Your task to perform on an android device: Go to Maps Image 0: 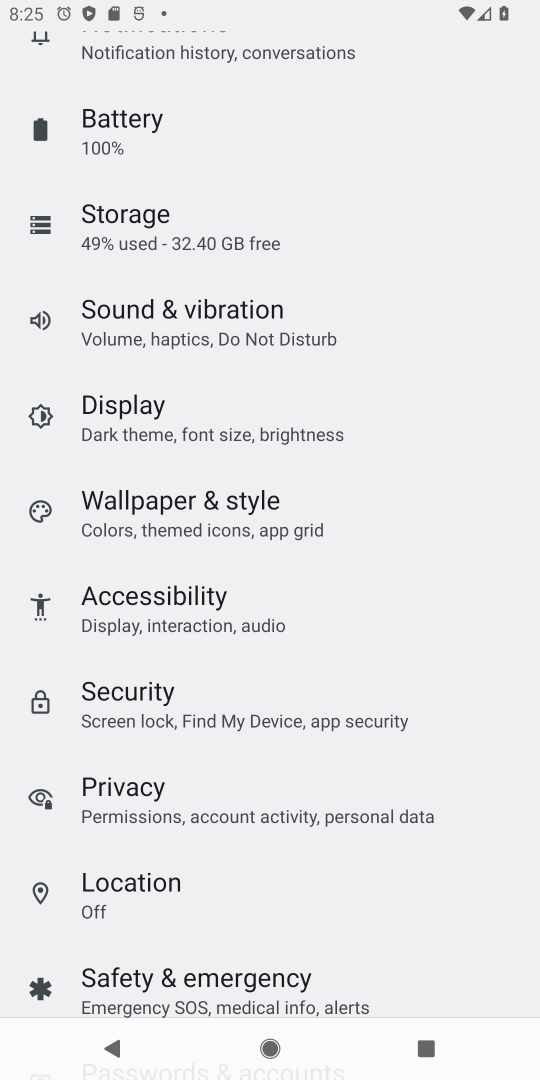
Step 0: press back button
Your task to perform on an android device: Go to Maps Image 1: 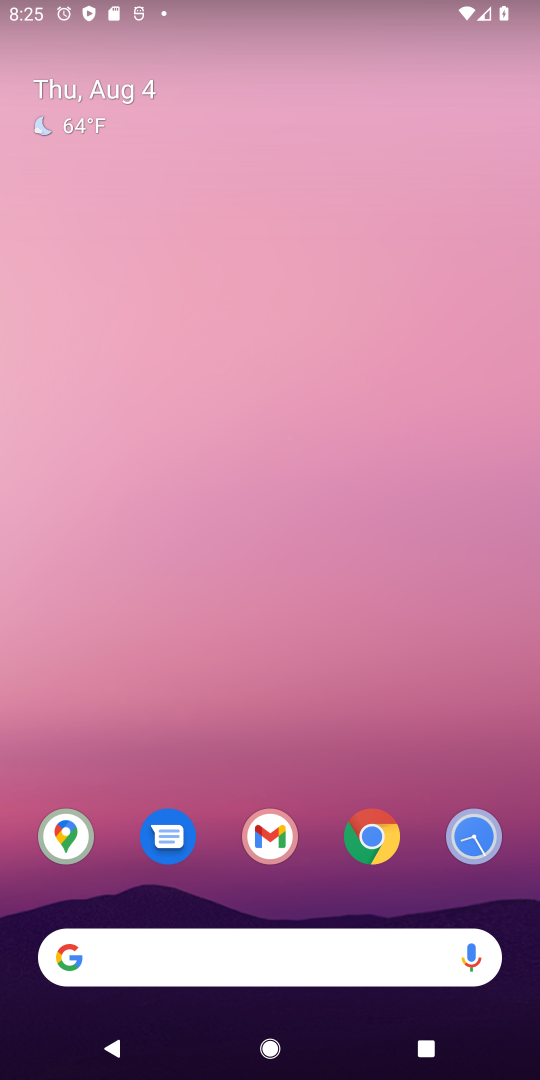
Step 1: click (62, 836)
Your task to perform on an android device: Go to Maps Image 2: 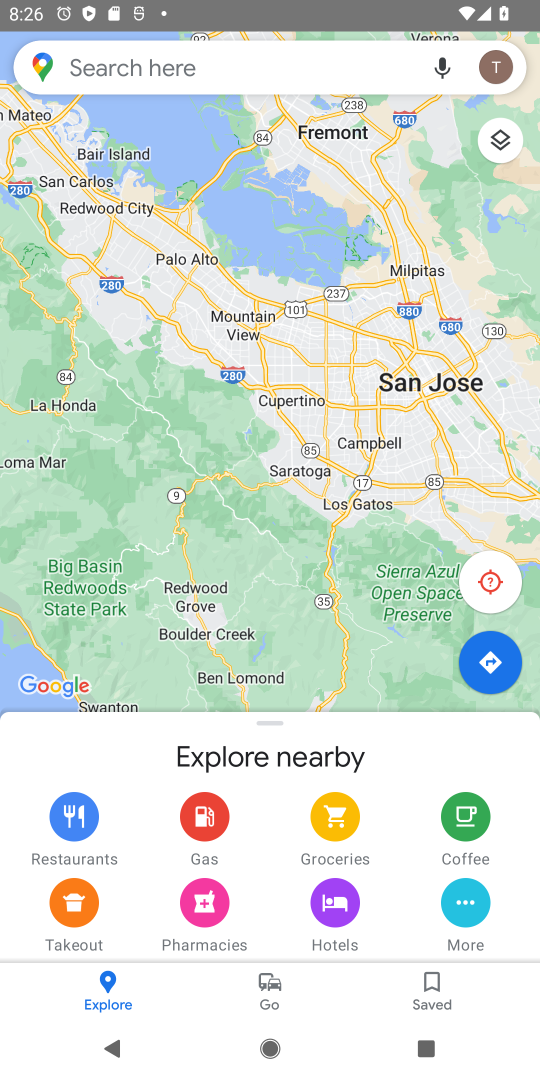
Step 2: task complete